Your task to perform on an android device: Go to Maps Image 0: 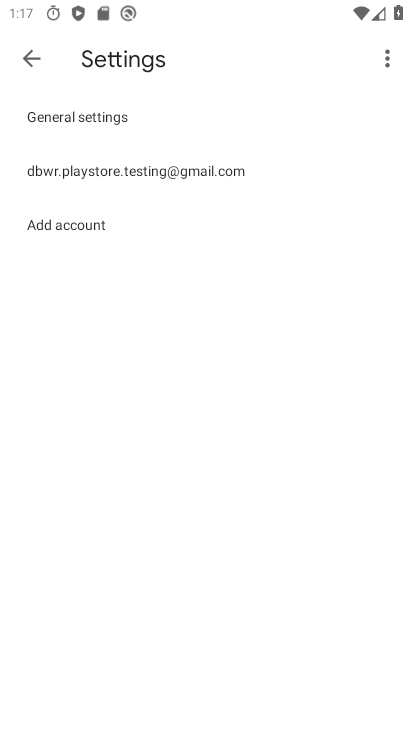
Step 0: press home button
Your task to perform on an android device: Go to Maps Image 1: 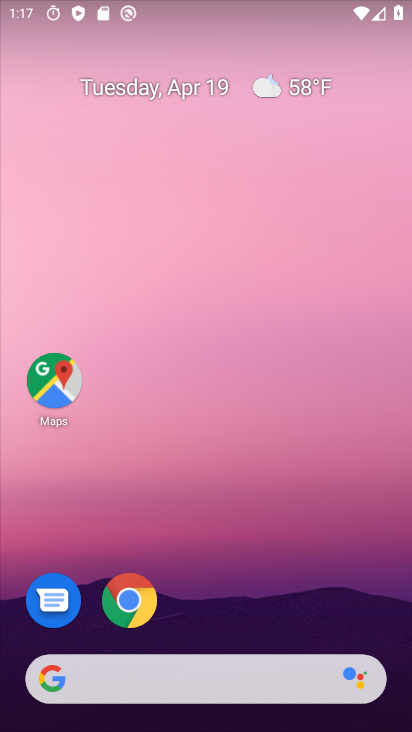
Step 1: drag from (171, 708) to (278, 308)
Your task to perform on an android device: Go to Maps Image 2: 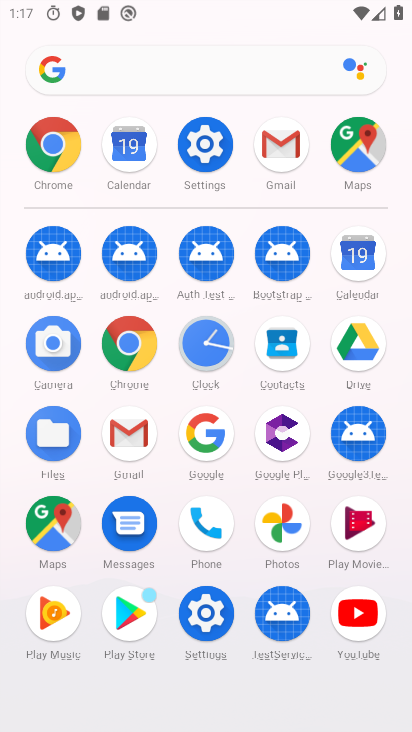
Step 2: click (366, 145)
Your task to perform on an android device: Go to Maps Image 3: 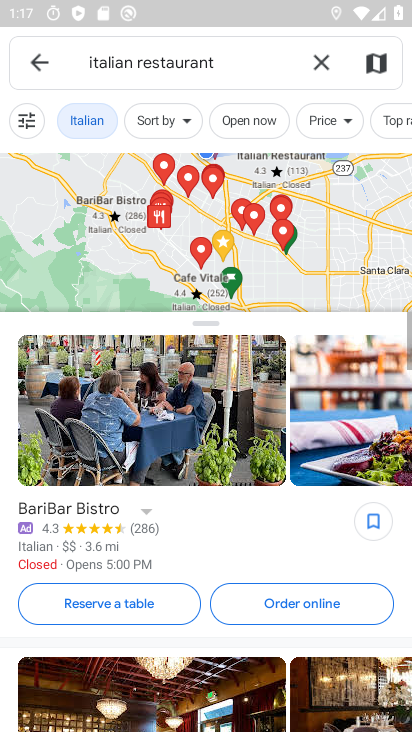
Step 3: click (303, 66)
Your task to perform on an android device: Go to Maps Image 4: 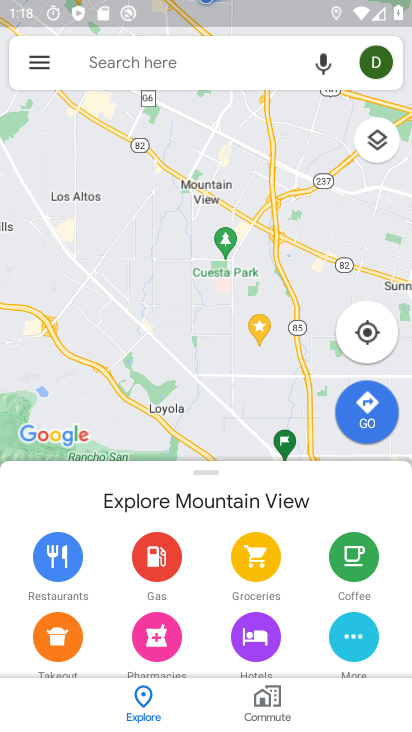
Step 4: task complete